Your task to perform on an android device: check the backup settings in the google photos Image 0: 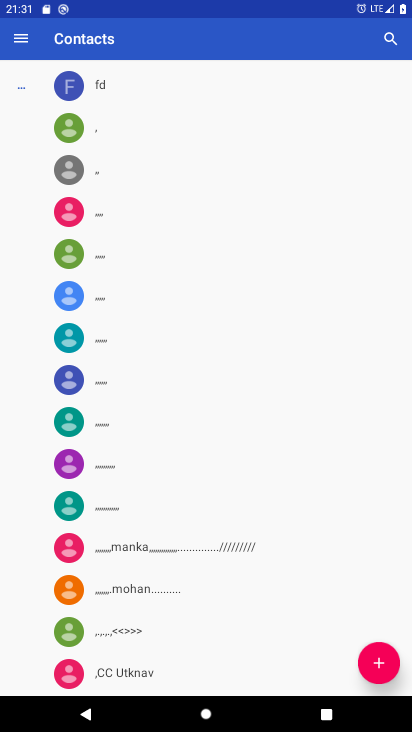
Step 0: press home button
Your task to perform on an android device: check the backup settings in the google photos Image 1: 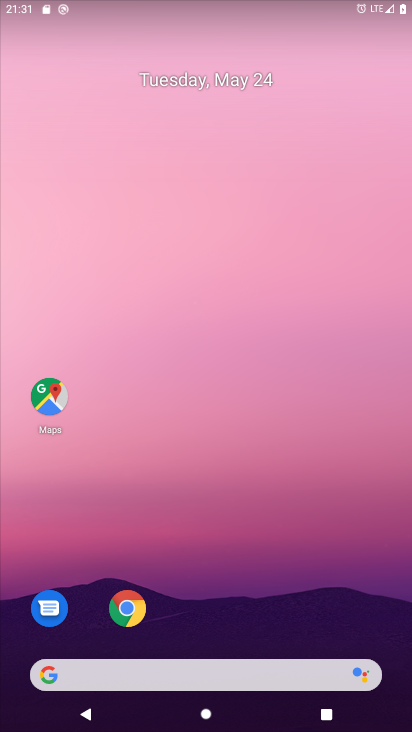
Step 1: drag from (218, 594) to (170, 14)
Your task to perform on an android device: check the backup settings in the google photos Image 2: 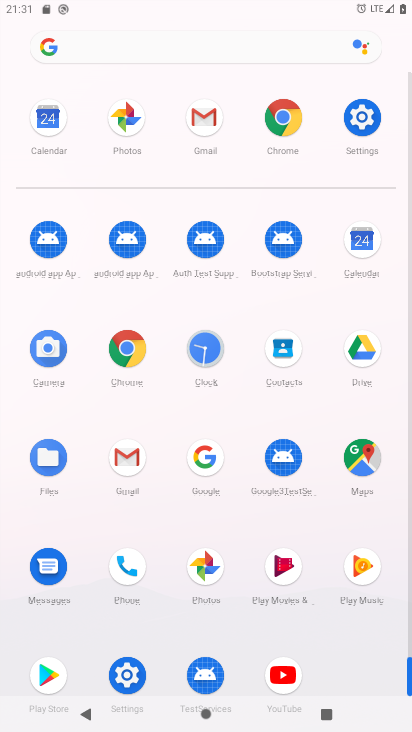
Step 2: click (198, 571)
Your task to perform on an android device: check the backup settings in the google photos Image 3: 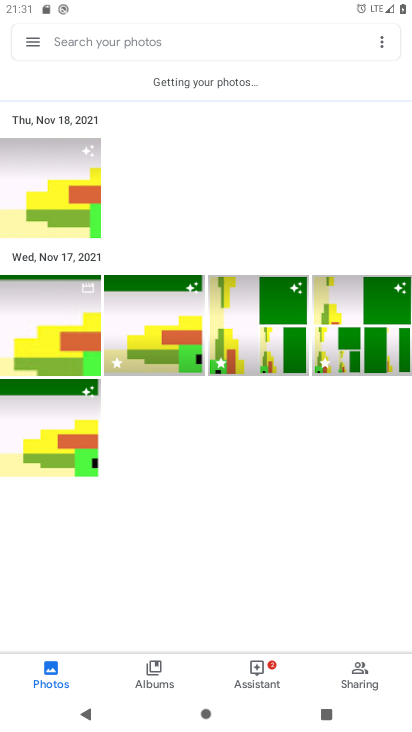
Step 3: click (29, 40)
Your task to perform on an android device: check the backup settings in the google photos Image 4: 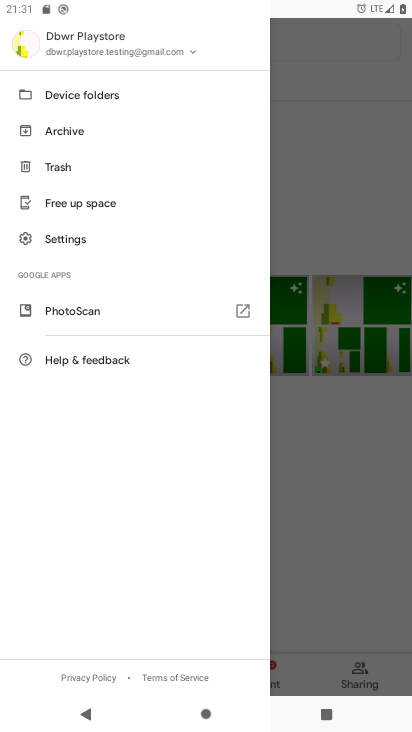
Step 4: click (73, 233)
Your task to perform on an android device: check the backup settings in the google photos Image 5: 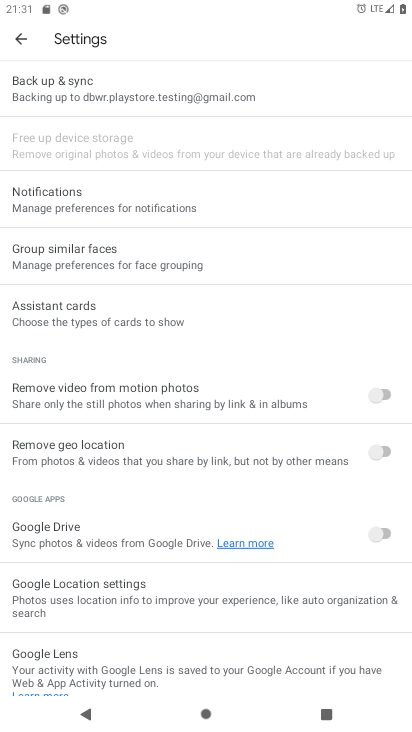
Step 5: click (120, 100)
Your task to perform on an android device: check the backup settings in the google photos Image 6: 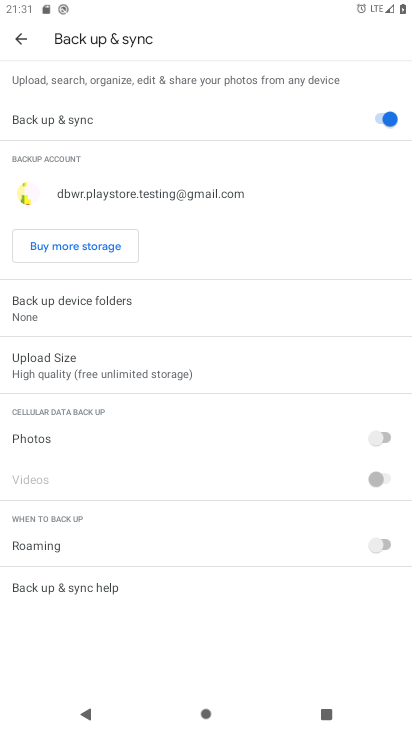
Step 6: task complete